Your task to perform on an android device: Open eBay Image 0: 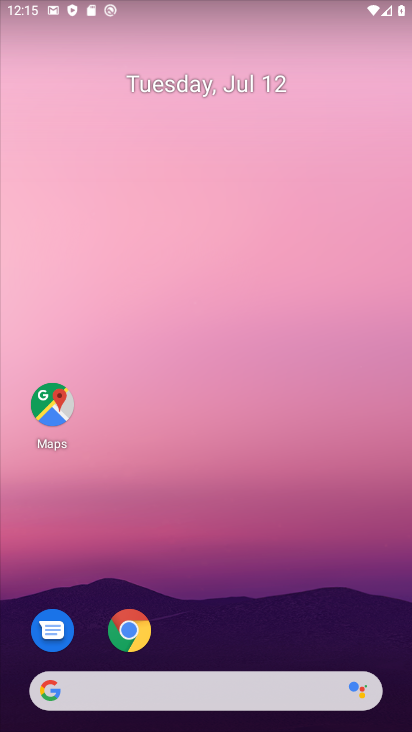
Step 0: drag from (220, 711) to (282, 124)
Your task to perform on an android device: Open eBay Image 1: 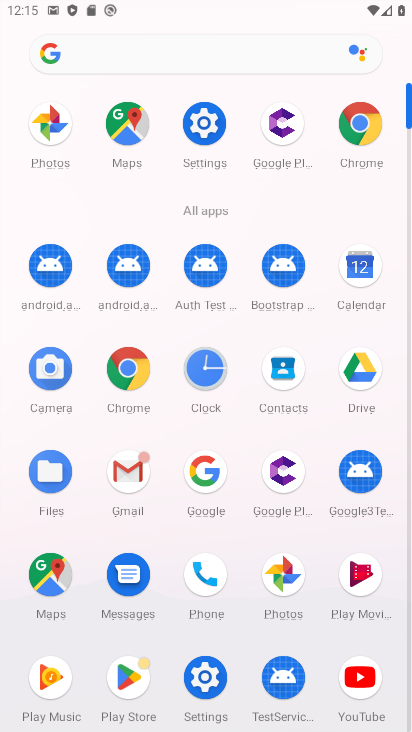
Step 1: click (350, 136)
Your task to perform on an android device: Open eBay Image 2: 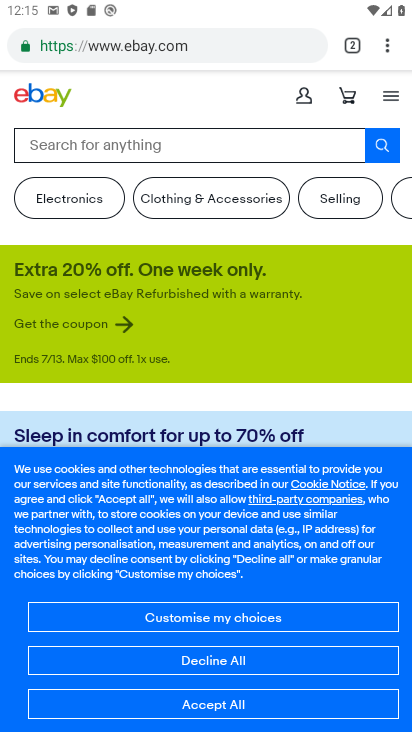
Step 2: click (352, 47)
Your task to perform on an android device: Open eBay Image 3: 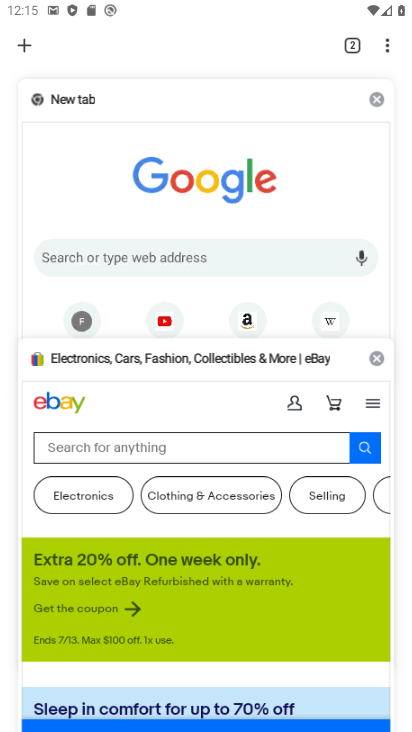
Step 3: click (121, 414)
Your task to perform on an android device: Open eBay Image 4: 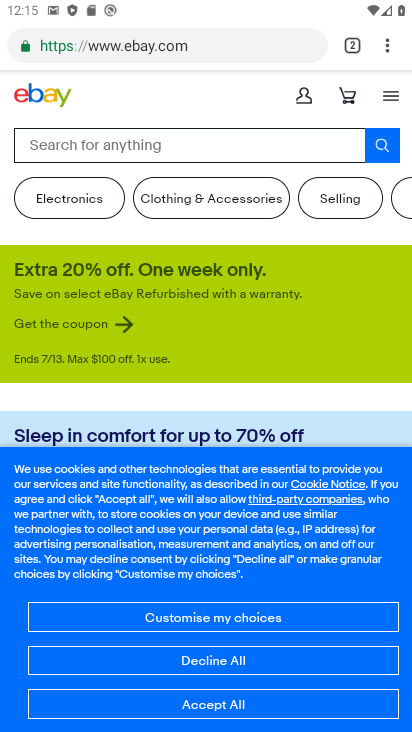
Step 4: click (199, 611)
Your task to perform on an android device: Open eBay Image 5: 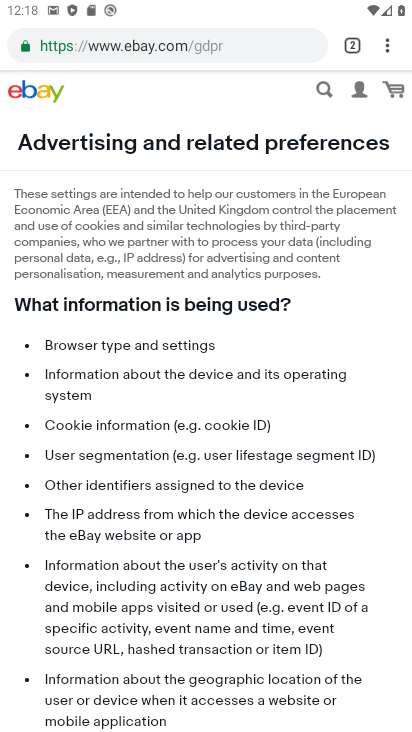
Step 5: task complete